Your task to perform on an android device: Go to battery settings Image 0: 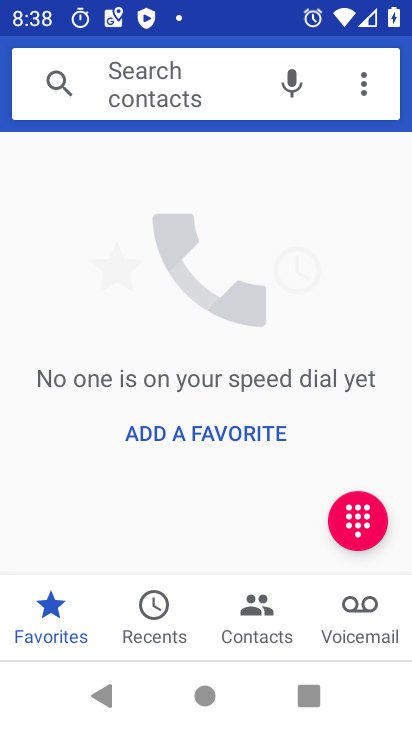
Step 0: press home button
Your task to perform on an android device: Go to battery settings Image 1: 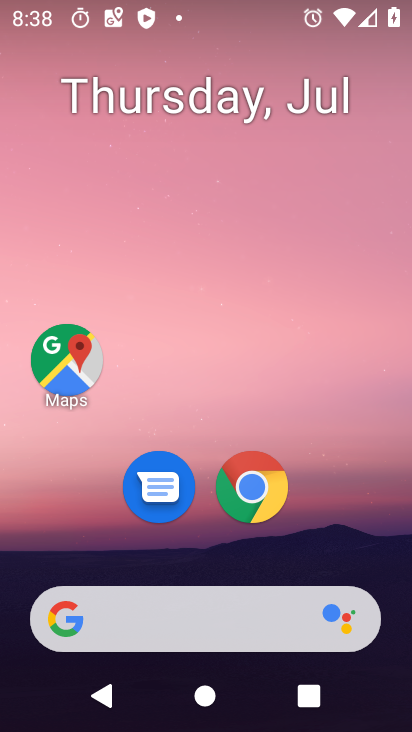
Step 1: drag from (220, 666) to (322, 187)
Your task to perform on an android device: Go to battery settings Image 2: 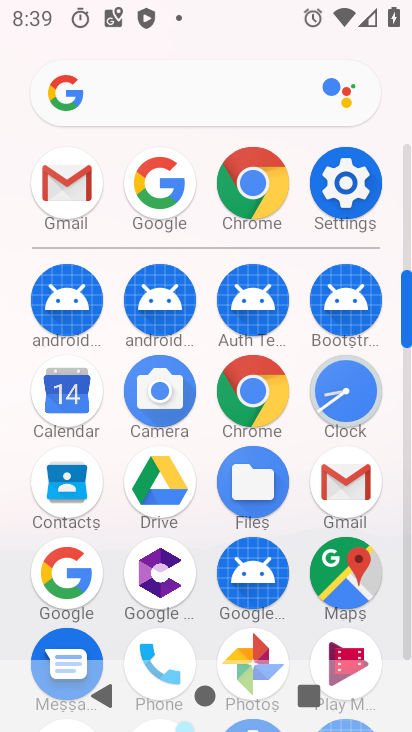
Step 2: click (343, 195)
Your task to perform on an android device: Go to battery settings Image 3: 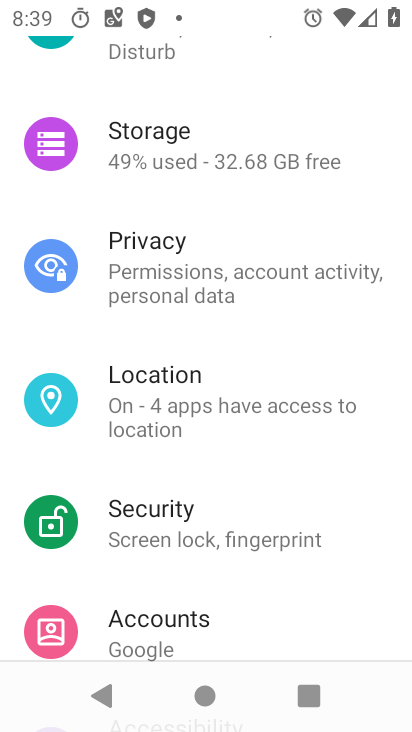
Step 3: drag from (206, 268) to (196, 545)
Your task to perform on an android device: Go to battery settings Image 4: 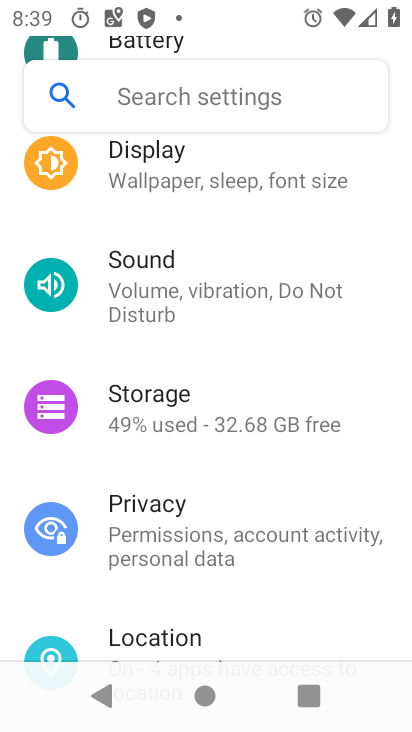
Step 4: drag from (188, 225) to (196, 514)
Your task to perform on an android device: Go to battery settings Image 5: 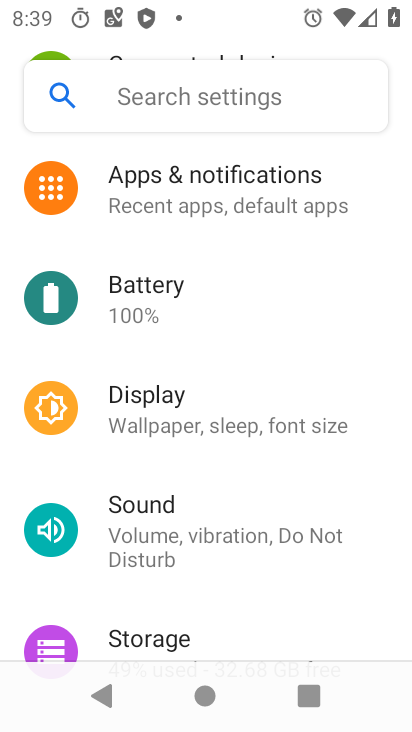
Step 5: click (165, 304)
Your task to perform on an android device: Go to battery settings Image 6: 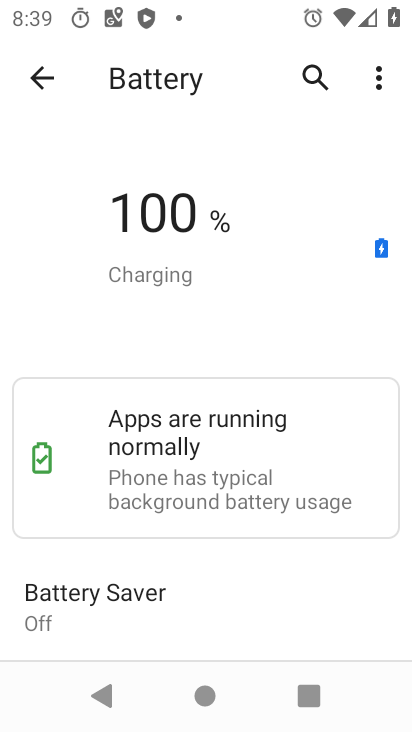
Step 6: task complete